Your task to perform on an android device: Show me productivity apps on the Play Store Image 0: 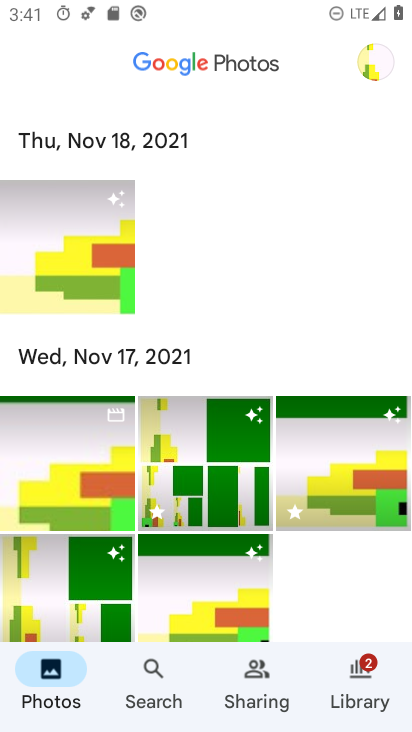
Step 0: press home button
Your task to perform on an android device: Show me productivity apps on the Play Store Image 1: 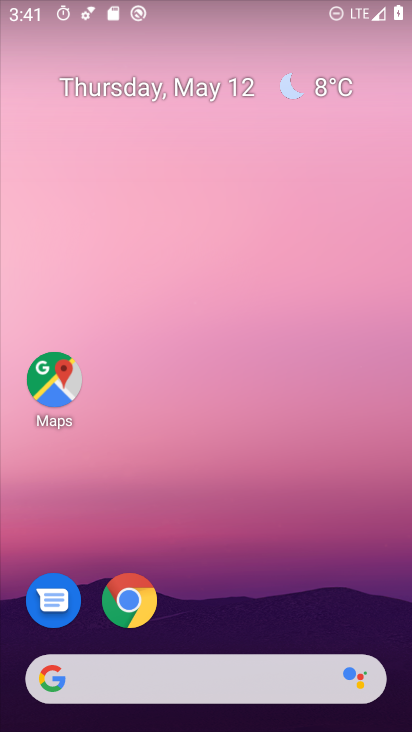
Step 1: drag from (209, 728) to (211, 179)
Your task to perform on an android device: Show me productivity apps on the Play Store Image 2: 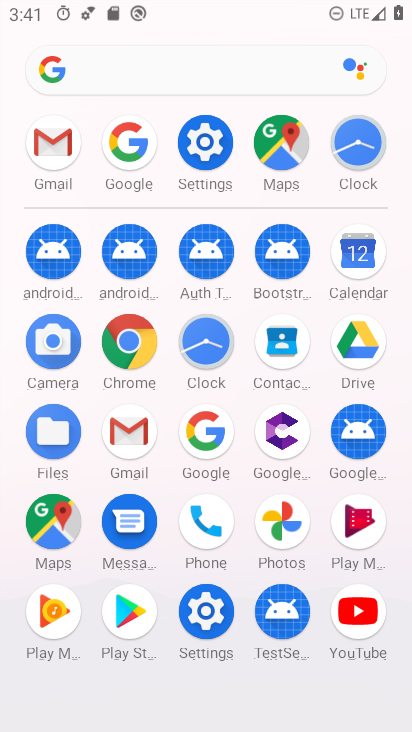
Step 2: click (134, 607)
Your task to perform on an android device: Show me productivity apps on the Play Store Image 3: 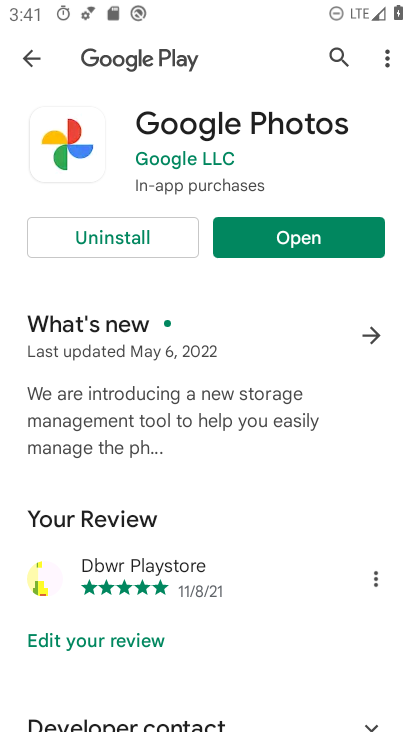
Step 3: click (27, 57)
Your task to perform on an android device: Show me productivity apps on the Play Store Image 4: 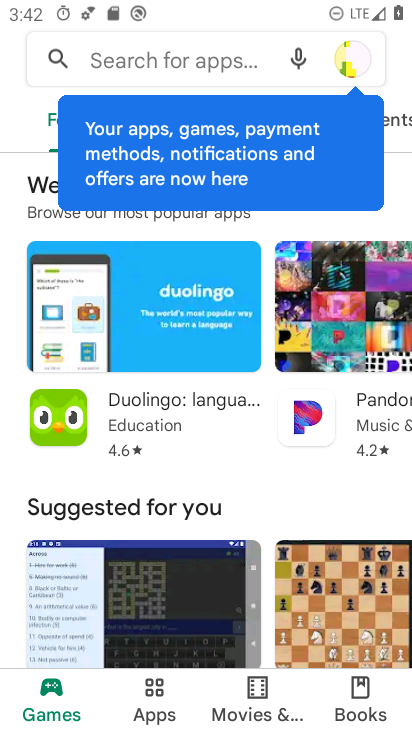
Step 4: click (154, 696)
Your task to perform on an android device: Show me productivity apps on the Play Store Image 5: 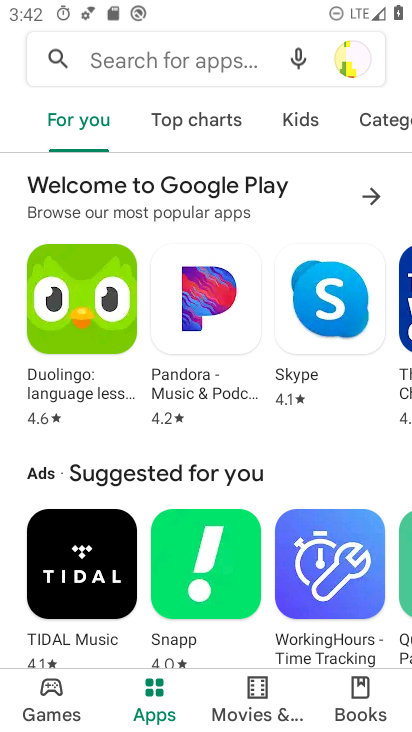
Step 5: click (373, 119)
Your task to perform on an android device: Show me productivity apps on the Play Store Image 6: 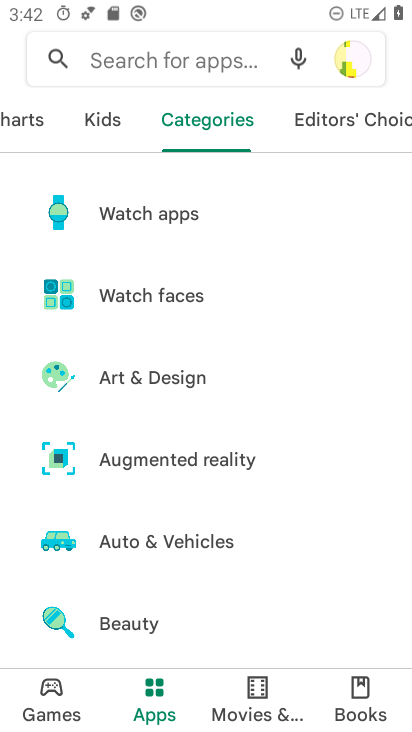
Step 6: drag from (169, 627) to (153, 318)
Your task to perform on an android device: Show me productivity apps on the Play Store Image 7: 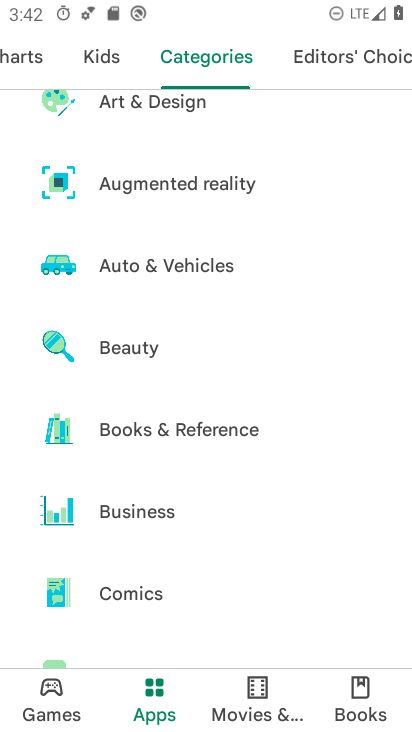
Step 7: drag from (143, 627) to (137, 312)
Your task to perform on an android device: Show me productivity apps on the Play Store Image 8: 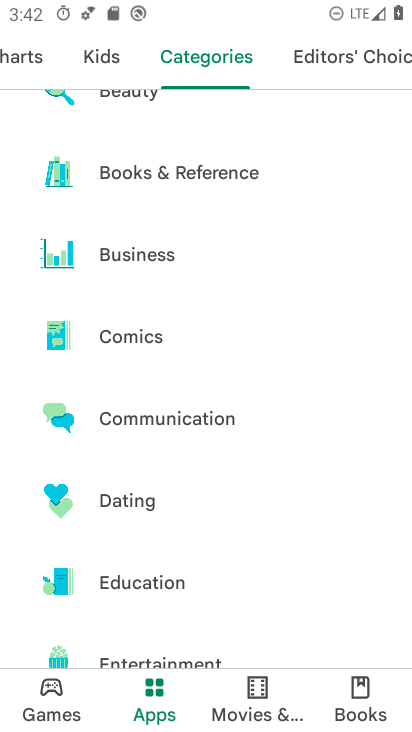
Step 8: drag from (170, 649) to (170, 267)
Your task to perform on an android device: Show me productivity apps on the Play Store Image 9: 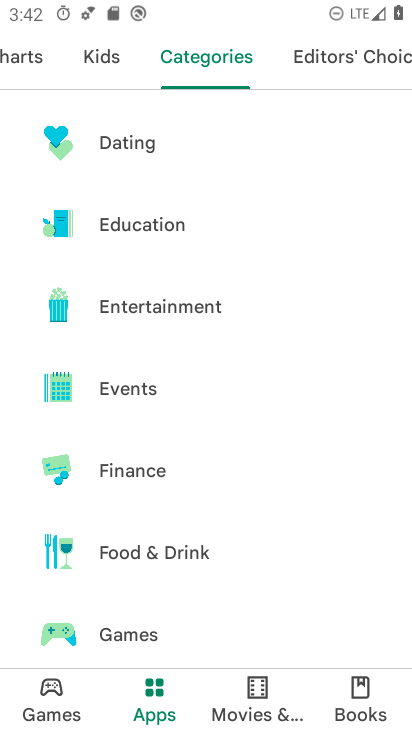
Step 9: drag from (148, 628) to (136, 208)
Your task to perform on an android device: Show me productivity apps on the Play Store Image 10: 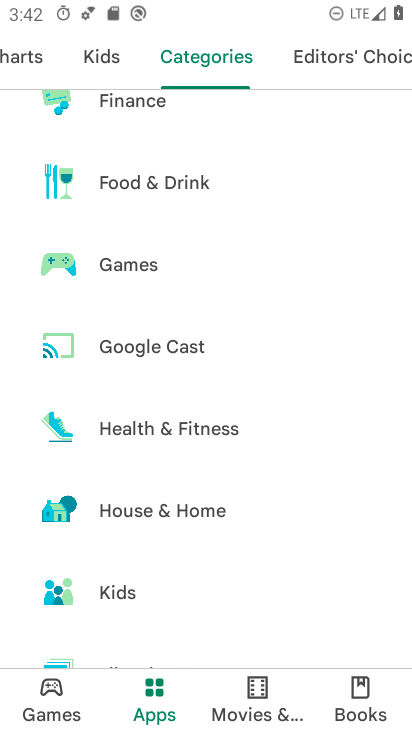
Step 10: drag from (146, 628) to (149, 197)
Your task to perform on an android device: Show me productivity apps on the Play Store Image 11: 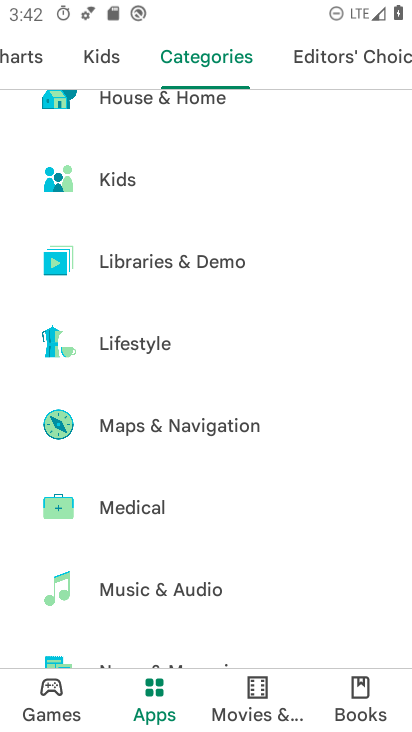
Step 11: drag from (199, 608) to (202, 273)
Your task to perform on an android device: Show me productivity apps on the Play Store Image 12: 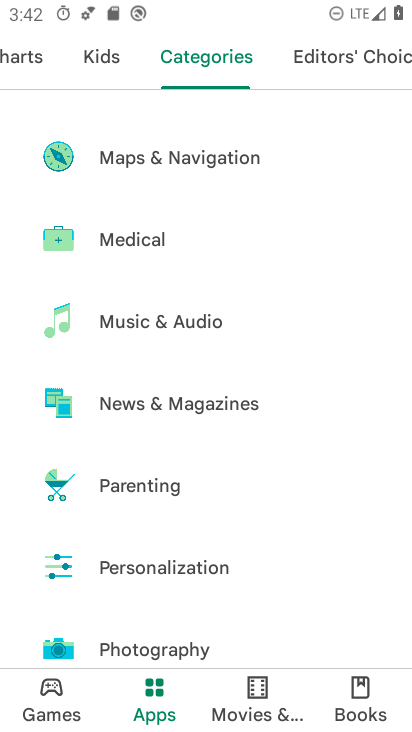
Step 12: drag from (180, 635) to (181, 218)
Your task to perform on an android device: Show me productivity apps on the Play Store Image 13: 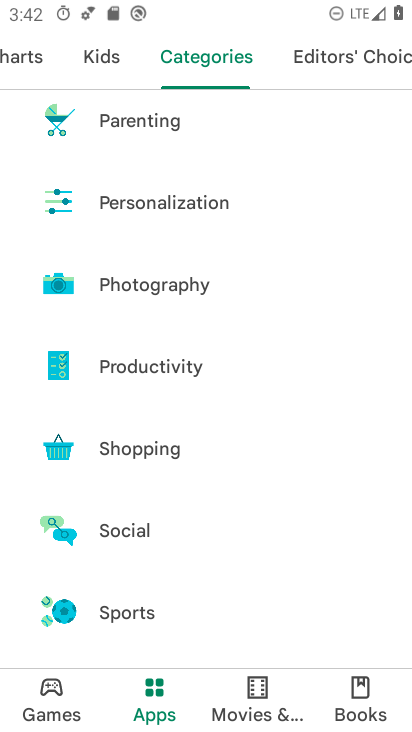
Step 13: click (144, 362)
Your task to perform on an android device: Show me productivity apps on the Play Store Image 14: 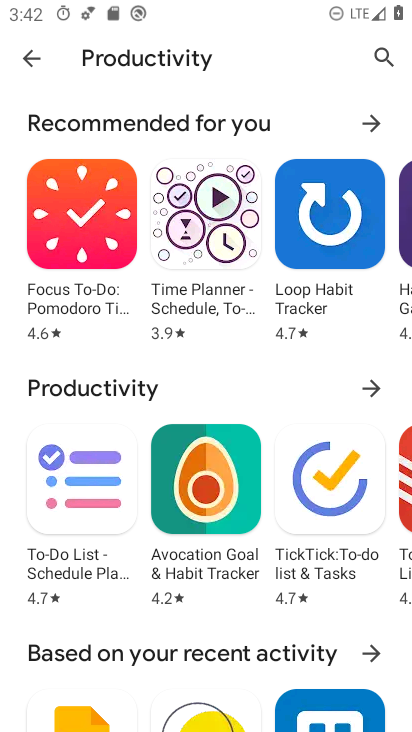
Step 14: task complete